Your task to perform on an android device: check storage Image 0: 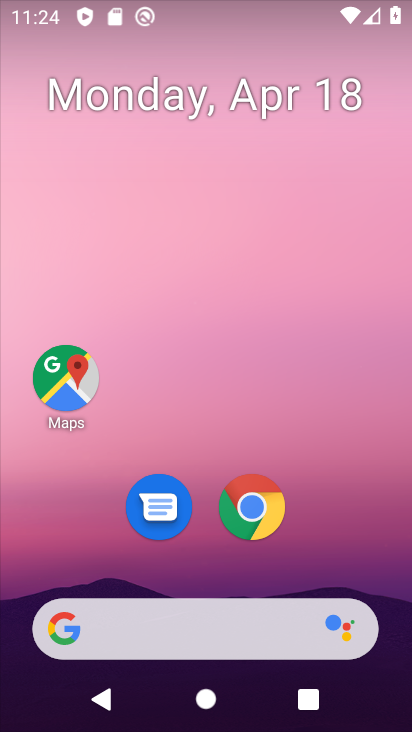
Step 0: drag from (334, 548) to (345, 202)
Your task to perform on an android device: check storage Image 1: 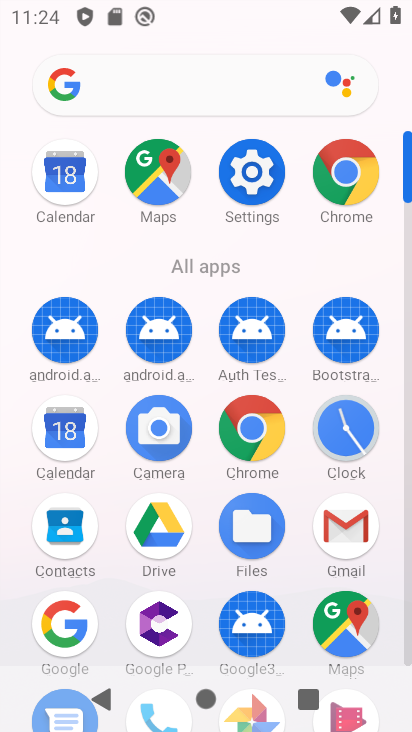
Step 1: click (273, 178)
Your task to perform on an android device: check storage Image 2: 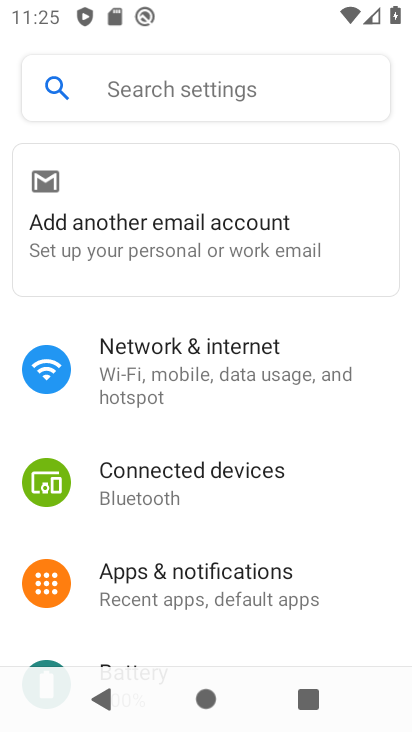
Step 2: drag from (243, 582) to (258, 301)
Your task to perform on an android device: check storage Image 3: 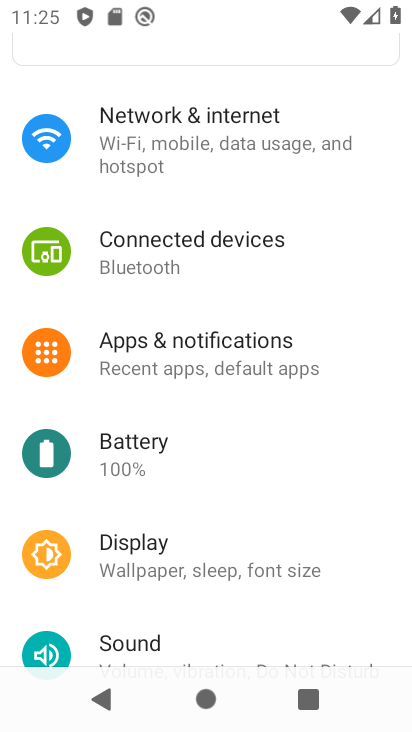
Step 3: drag from (162, 597) to (183, 341)
Your task to perform on an android device: check storage Image 4: 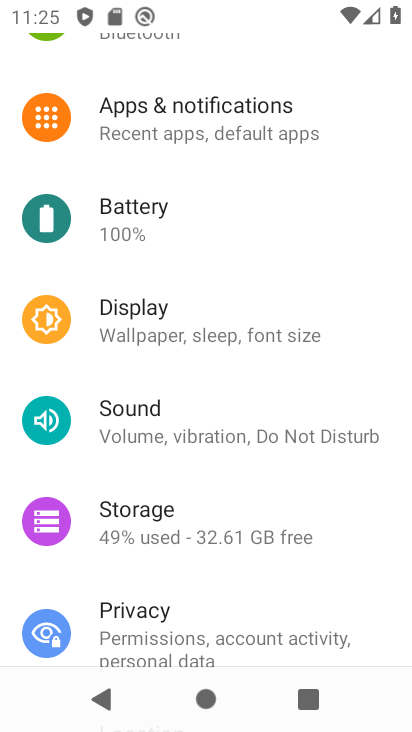
Step 4: click (152, 524)
Your task to perform on an android device: check storage Image 5: 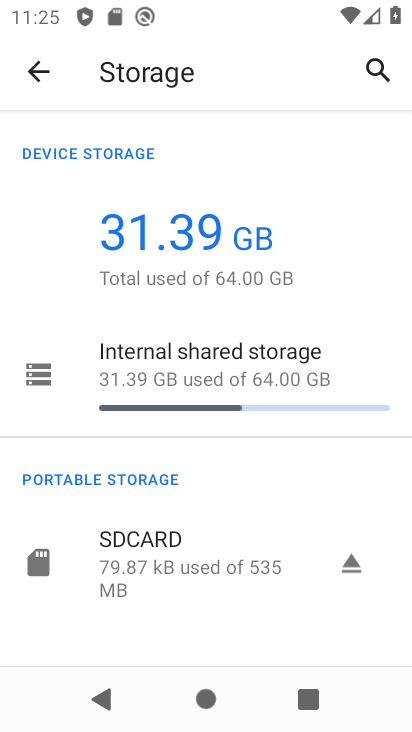
Step 5: task complete